Your task to perform on an android device: change the upload size in google photos Image 0: 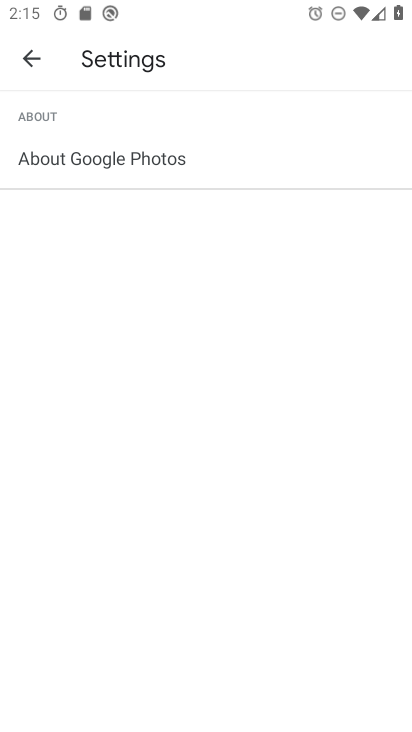
Step 0: press home button
Your task to perform on an android device: change the upload size in google photos Image 1: 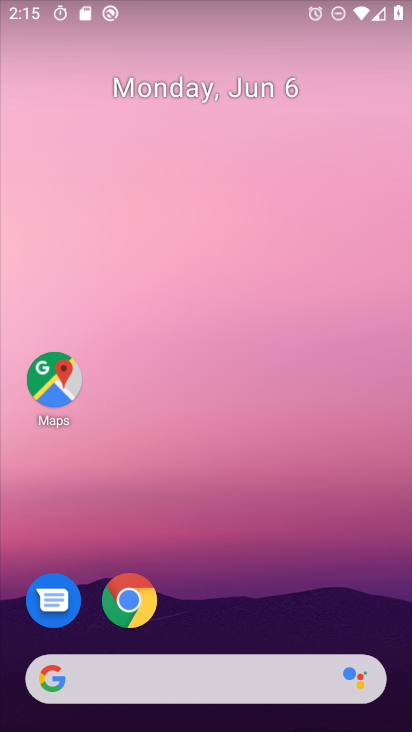
Step 1: drag from (228, 615) to (219, 225)
Your task to perform on an android device: change the upload size in google photos Image 2: 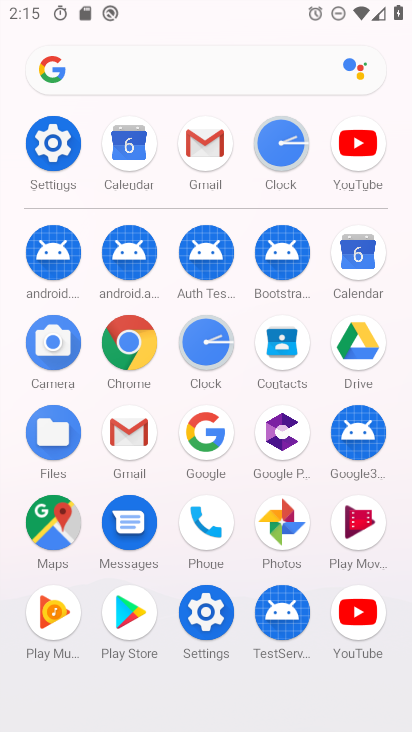
Step 2: click (282, 524)
Your task to perform on an android device: change the upload size in google photos Image 3: 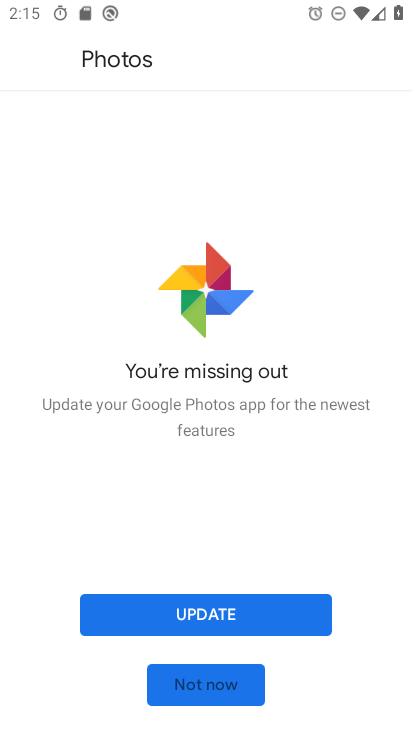
Step 3: click (195, 686)
Your task to perform on an android device: change the upload size in google photos Image 4: 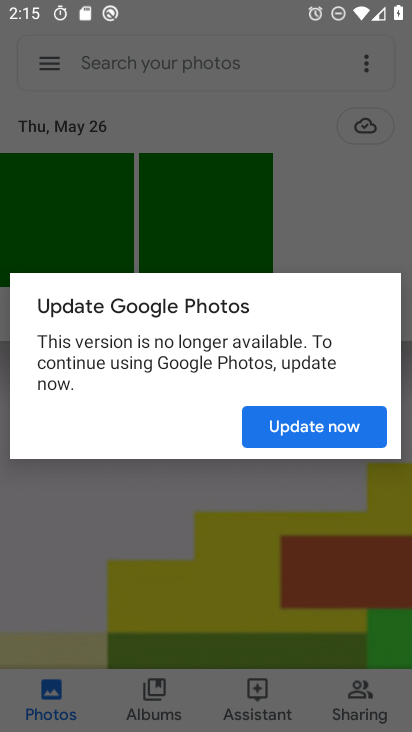
Step 4: click (296, 431)
Your task to perform on an android device: change the upload size in google photos Image 5: 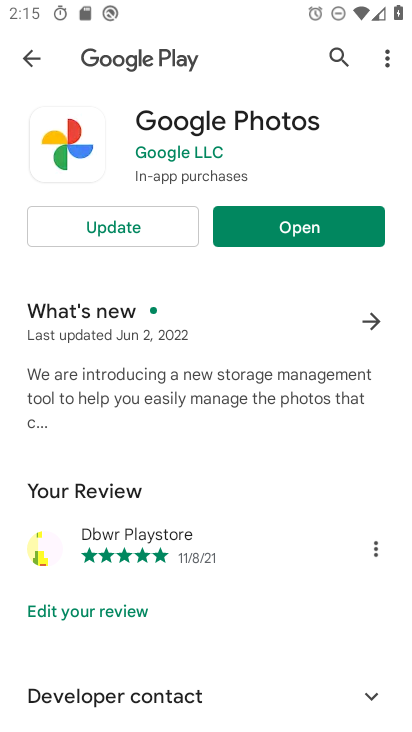
Step 5: click (291, 227)
Your task to perform on an android device: change the upload size in google photos Image 6: 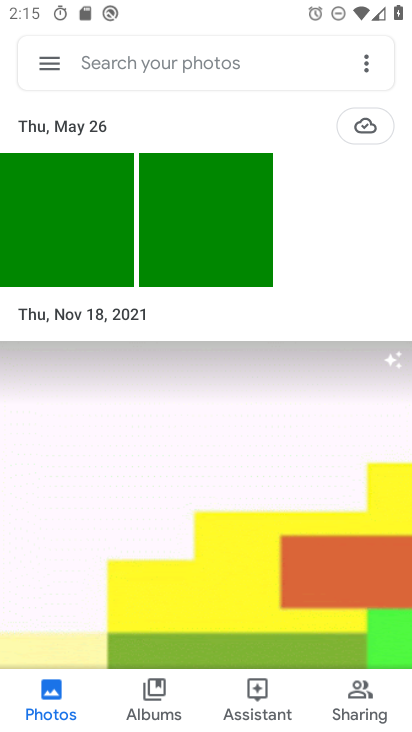
Step 6: click (47, 64)
Your task to perform on an android device: change the upload size in google photos Image 7: 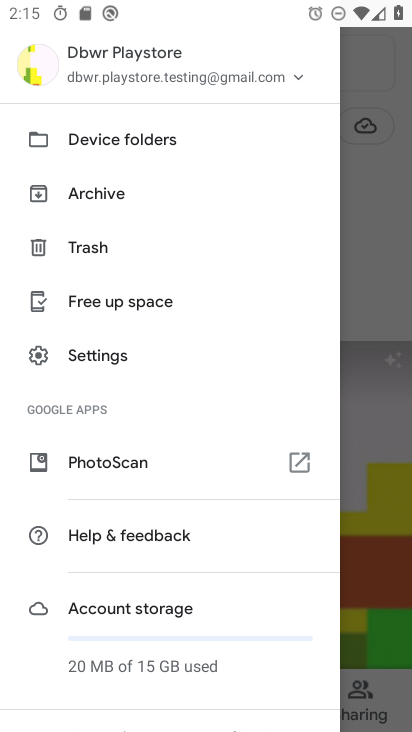
Step 7: drag from (151, 640) to (153, 425)
Your task to perform on an android device: change the upload size in google photos Image 8: 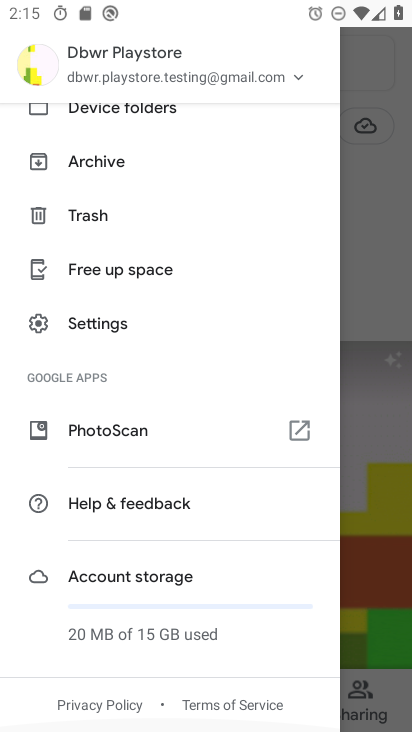
Step 8: click (110, 332)
Your task to perform on an android device: change the upload size in google photos Image 9: 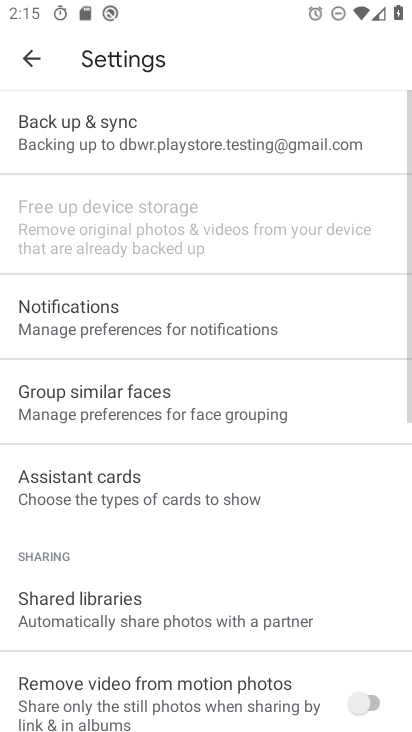
Step 9: click (98, 141)
Your task to perform on an android device: change the upload size in google photos Image 10: 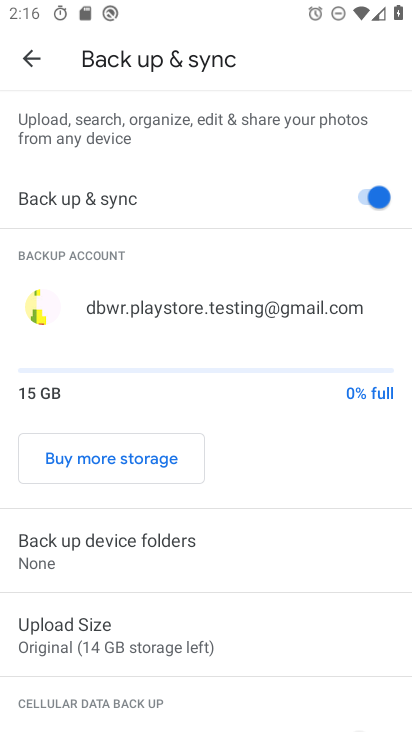
Step 10: click (172, 652)
Your task to perform on an android device: change the upload size in google photos Image 11: 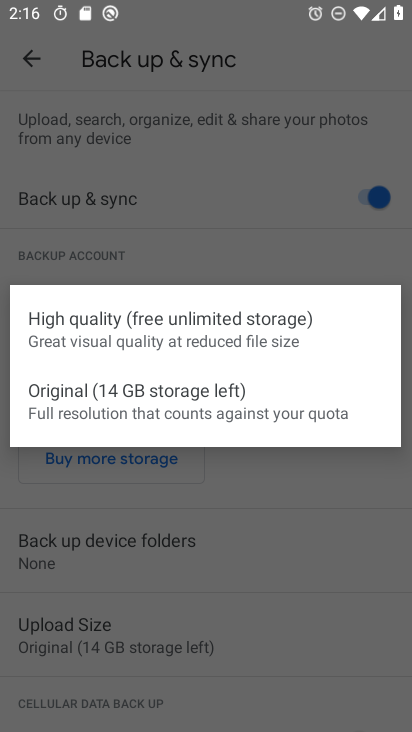
Step 11: click (131, 407)
Your task to perform on an android device: change the upload size in google photos Image 12: 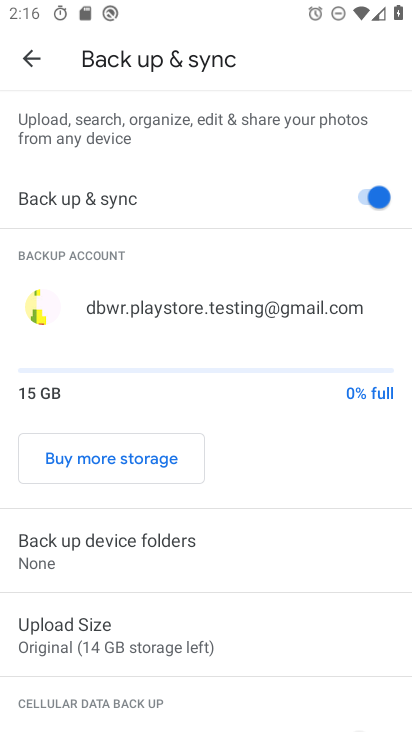
Step 12: task complete